Your task to perform on an android device: Open calendar and show me the second week of next month Image 0: 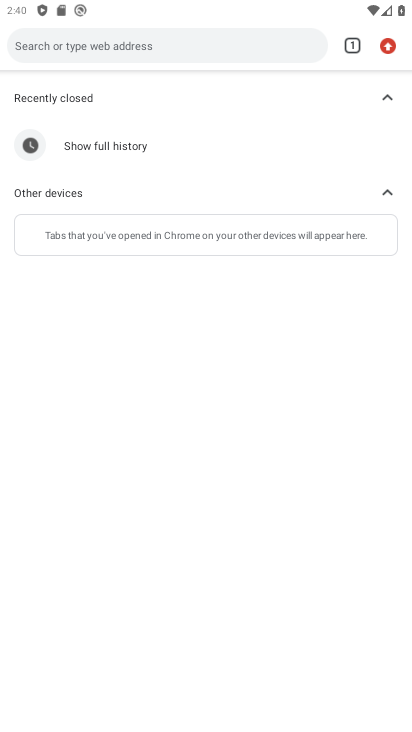
Step 0: press home button
Your task to perform on an android device: Open calendar and show me the second week of next month Image 1: 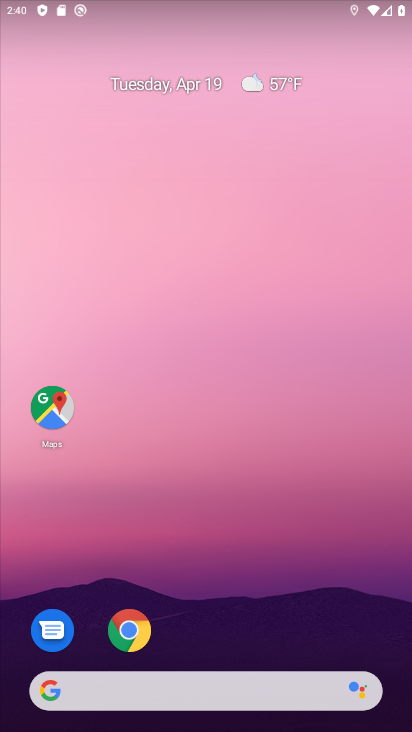
Step 1: drag from (208, 603) to (216, 197)
Your task to perform on an android device: Open calendar and show me the second week of next month Image 2: 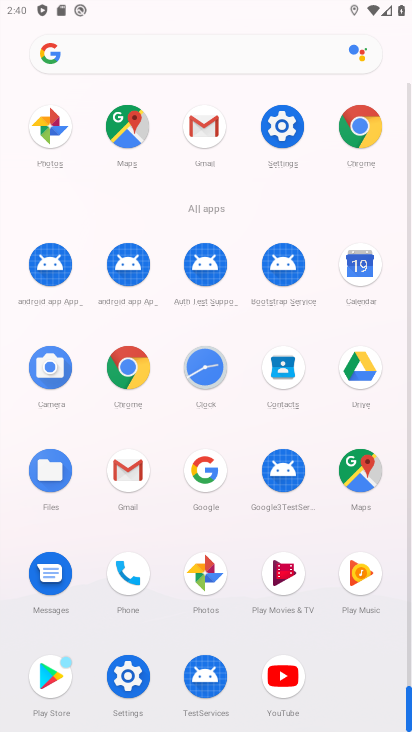
Step 2: click (364, 279)
Your task to perform on an android device: Open calendar and show me the second week of next month Image 3: 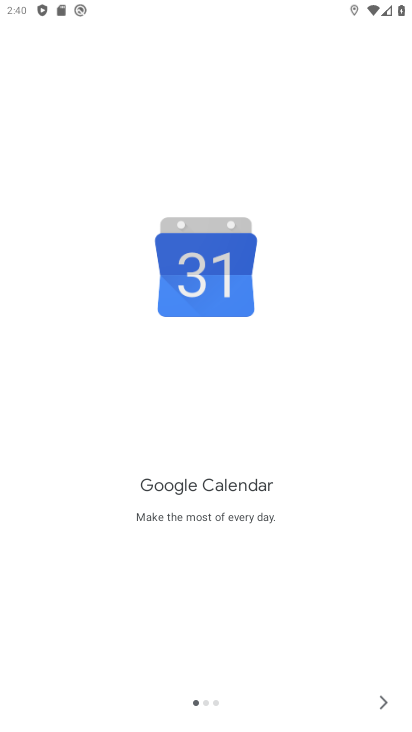
Step 3: click (371, 698)
Your task to perform on an android device: Open calendar and show me the second week of next month Image 4: 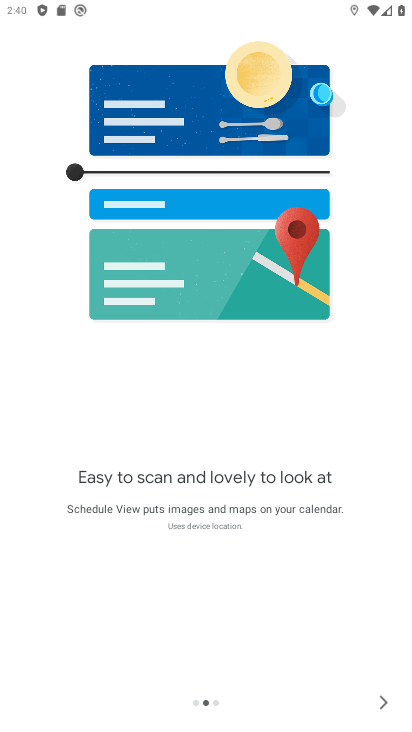
Step 4: click (372, 697)
Your task to perform on an android device: Open calendar and show me the second week of next month Image 5: 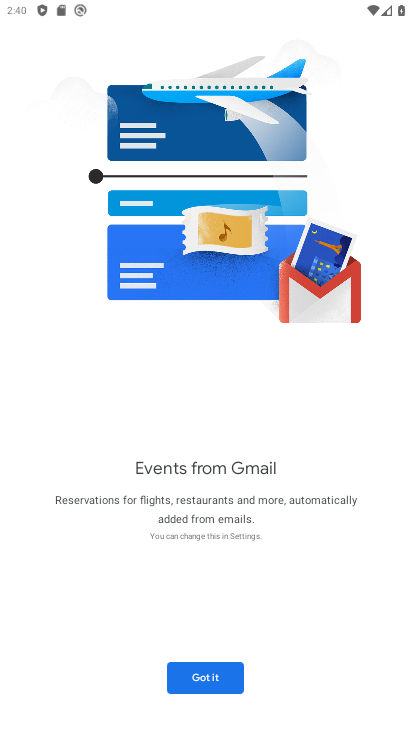
Step 5: click (372, 697)
Your task to perform on an android device: Open calendar and show me the second week of next month Image 6: 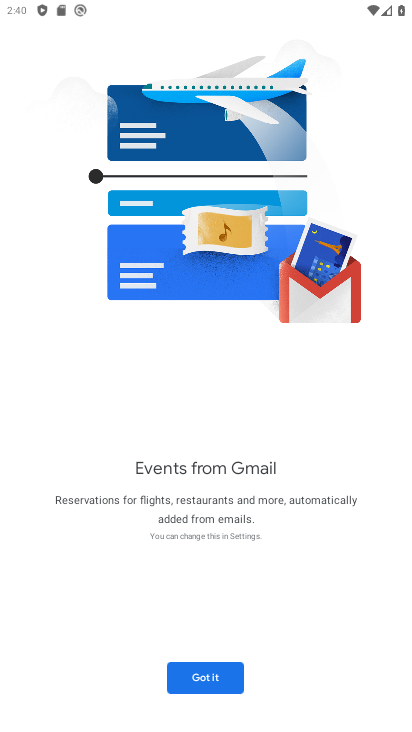
Step 6: click (233, 674)
Your task to perform on an android device: Open calendar and show me the second week of next month Image 7: 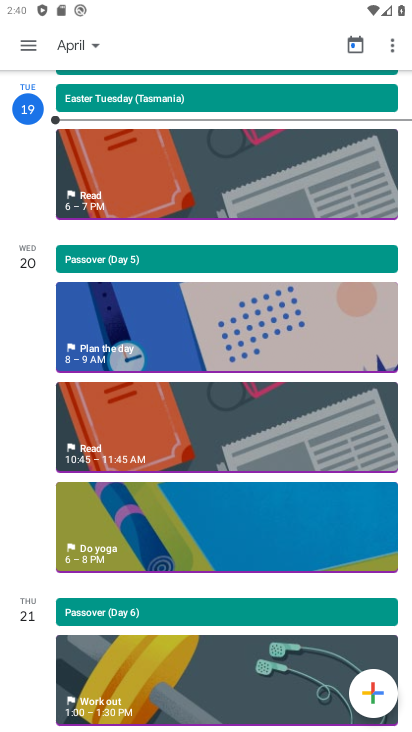
Step 7: click (83, 51)
Your task to perform on an android device: Open calendar and show me the second week of next month Image 8: 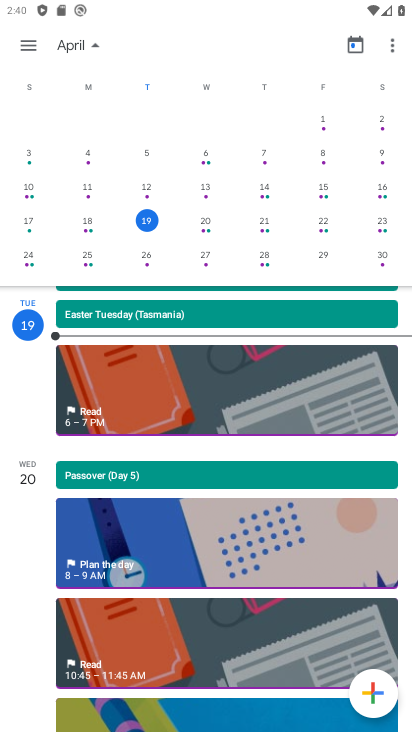
Step 8: drag from (341, 192) to (3, 130)
Your task to perform on an android device: Open calendar and show me the second week of next month Image 9: 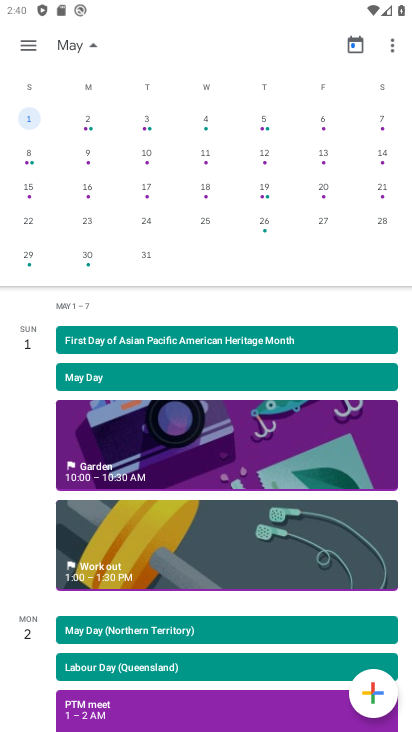
Step 9: click (85, 155)
Your task to perform on an android device: Open calendar and show me the second week of next month Image 10: 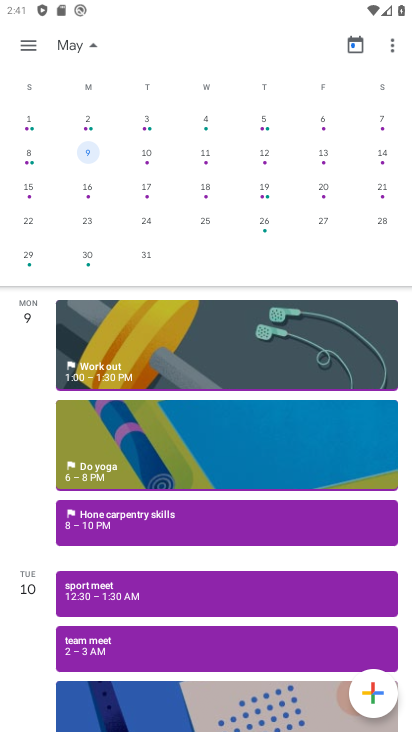
Step 10: task complete